Your task to perform on an android device: check storage Image 0: 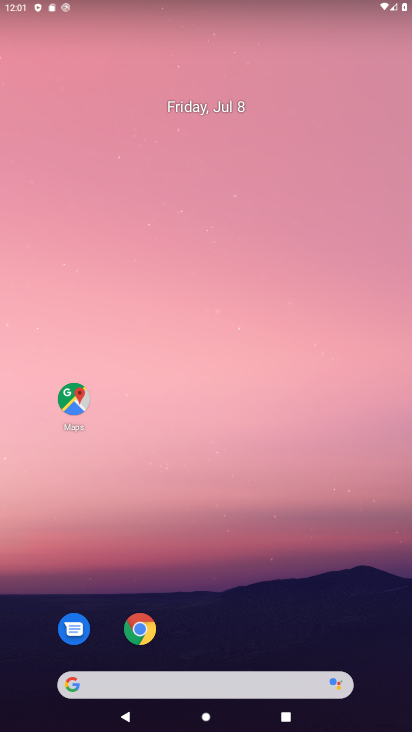
Step 0: drag from (321, 613) to (248, 50)
Your task to perform on an android device: check storage Image 1: 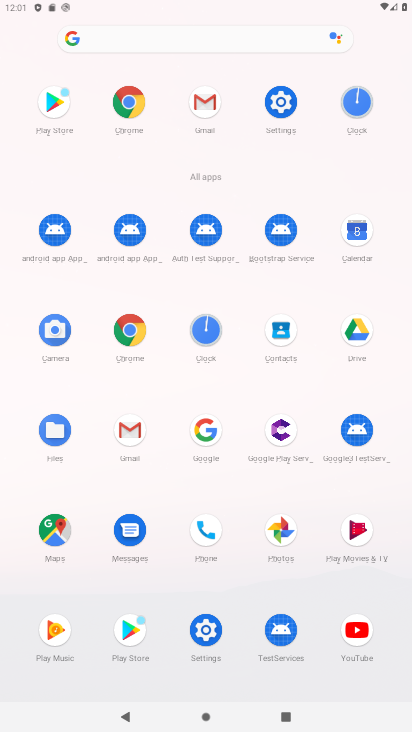
Step 1: click (285, 95)
Your task to perform on an android device: check storage Image 2: 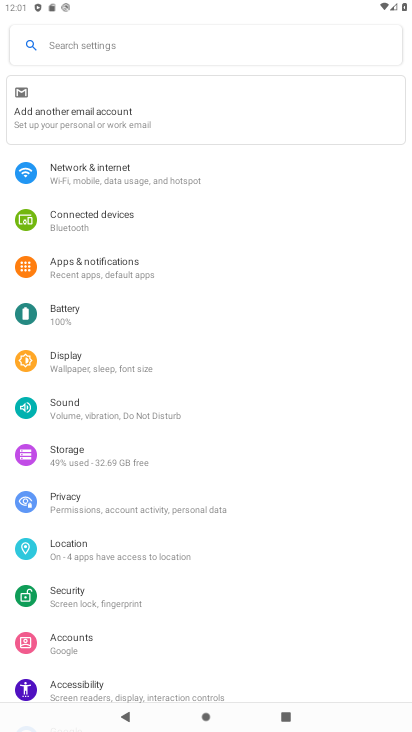
Step 2: drag from (221, 607) to (139, 275)
Your task to perform on an android device: check storage Image 3: 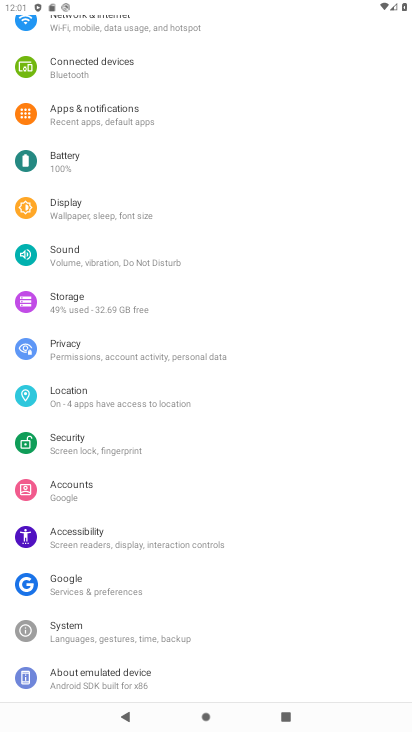
Step 3: click (95, 296)
Your task to perform on an android device: check storage Image 4: 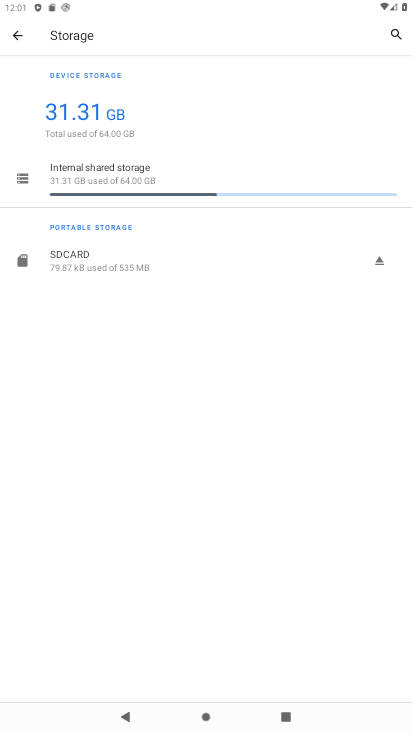
Step 4: task complete